Your task to perform on an android device: What's the weather today? Image 0: 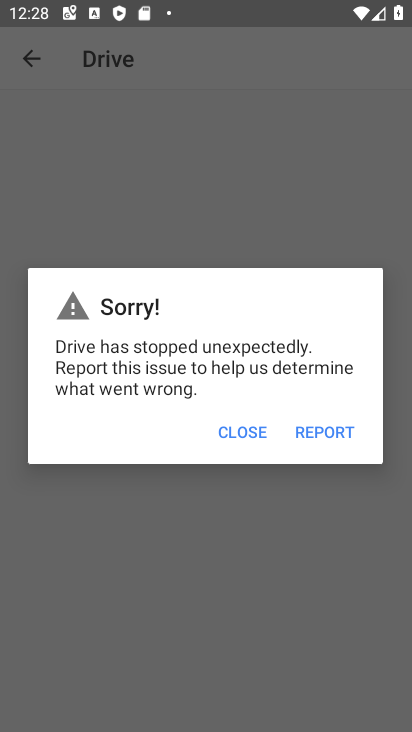
Step 0: press home button
Your task to perform on an android device: What's the weather today? Image 1: 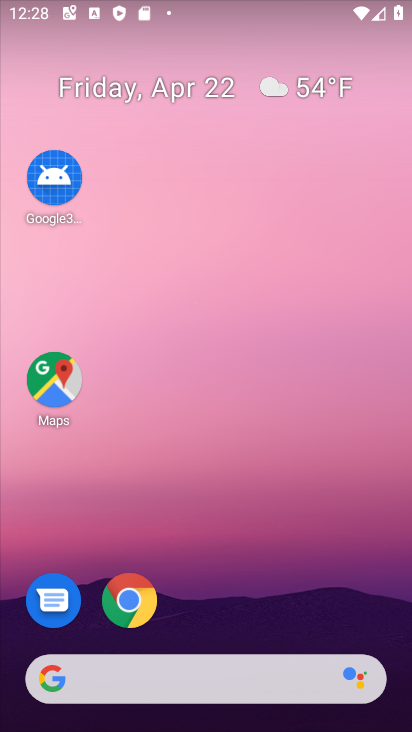
Step 1: click (309, 86)
Your task to perform on an android device: What's the weather today? Image 2: 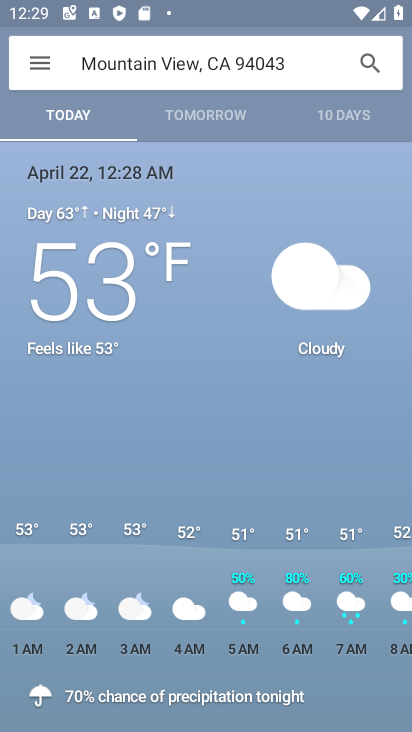
Step 2: task complete